Your task to perform on an android device: find which apps use the phone's location Image 0: 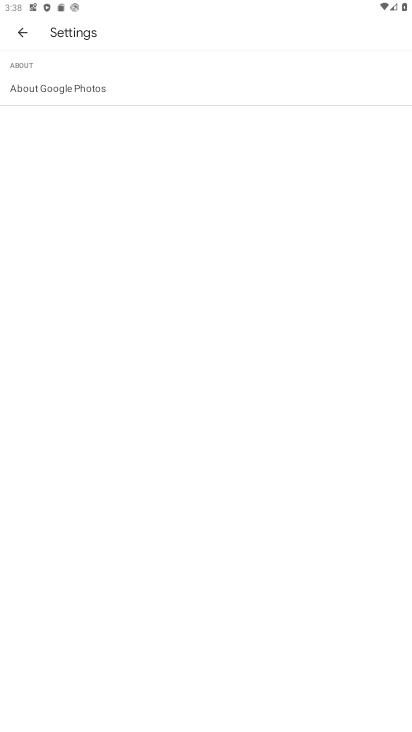
Step 0: press home button
Your task to perform on an android device: find which apps use the phone's location Image 1: 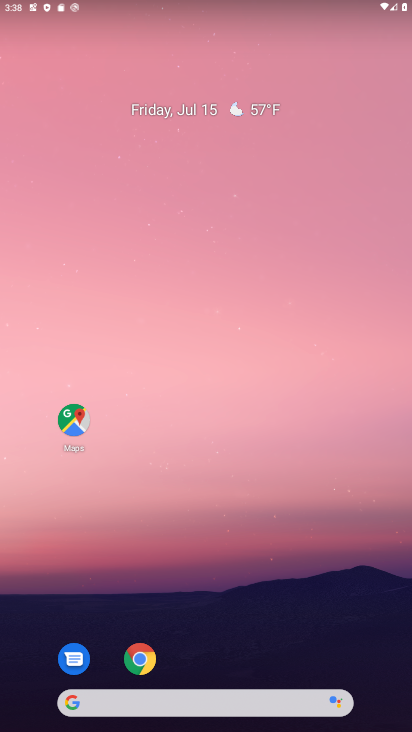
Step 1: drag from (174, 665) to (252, 2)
Your task to perform on an android device: find which apps use the phone's location Image 2: 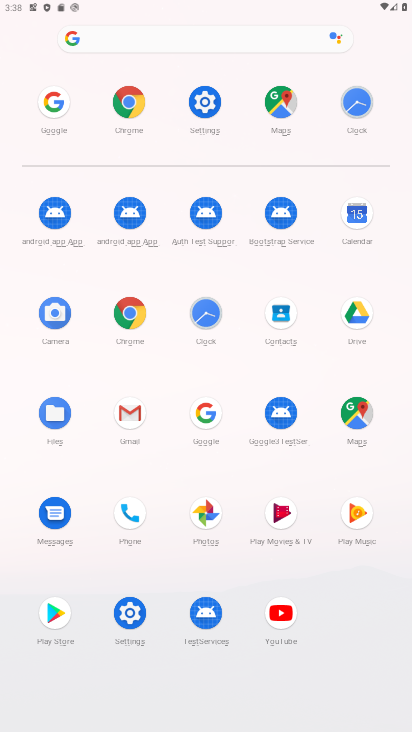
Step 2: click (203, 105)
Your task to perform on an android device: find which apps use the phone's location Image 3: 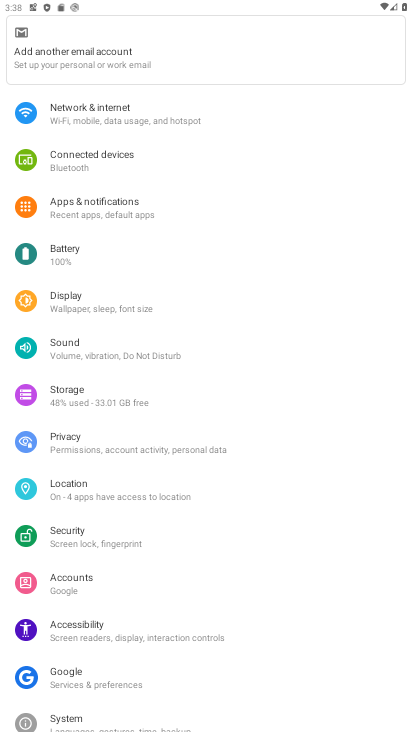
Step 3: click (72, 481)
Your task to perform on an android device: find which apps use the phone's location Image 4: 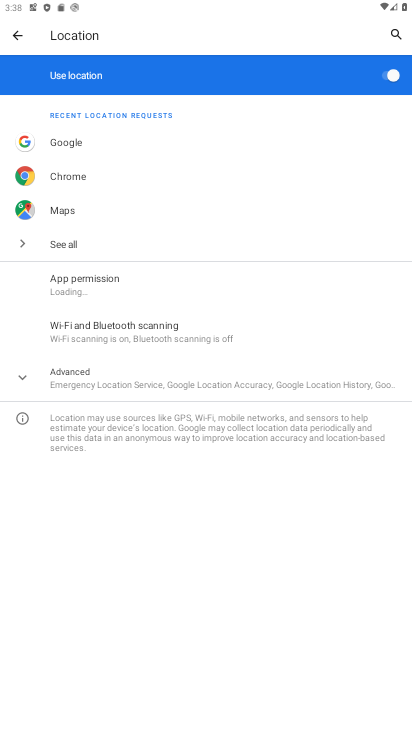
Step 4: click (74, 283)
Your task to perform on an android device: find which apps use the phone's location Image 5: 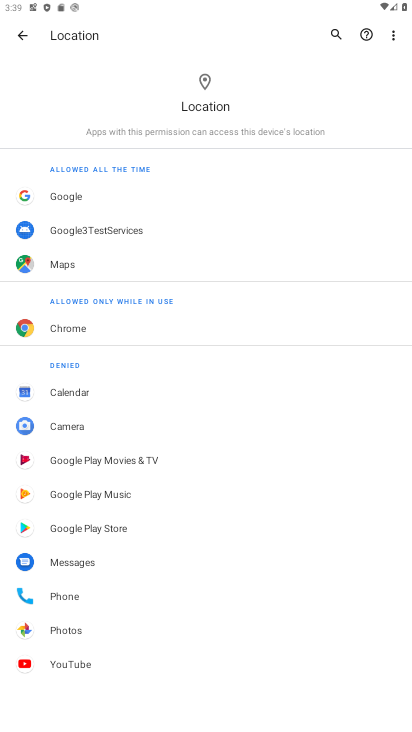
Step 5: task complete